Your task to perform on an android device: Go to display settings Image 0: 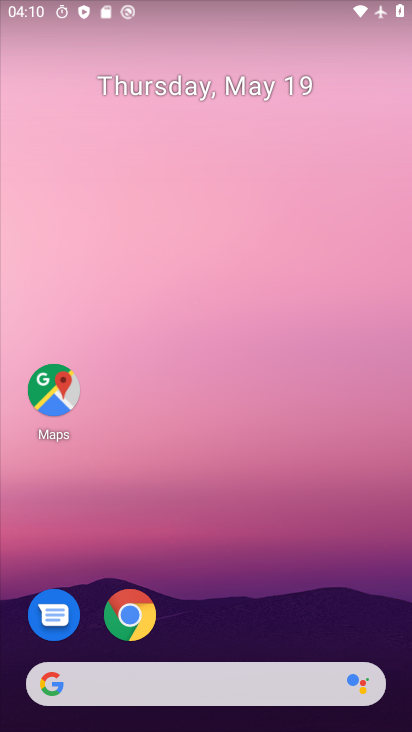
Step 0: drag from (334, 642) to (330, 10)
Your task to perform on an android device: Go to display settings Image 1: 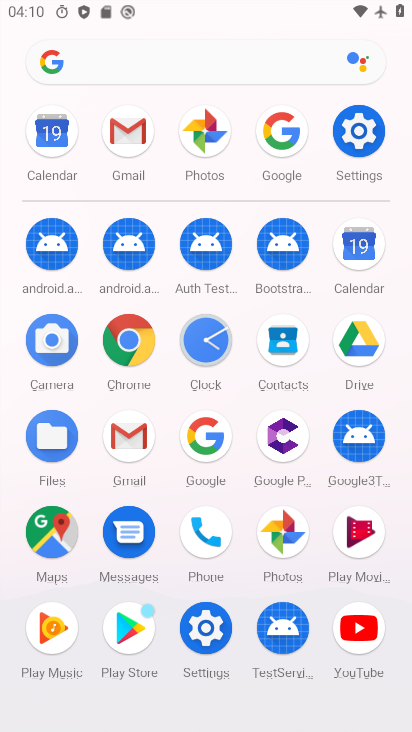
Step 1: click (361, 125)
Your task to perform on an android device: Go to display settings Image 2: 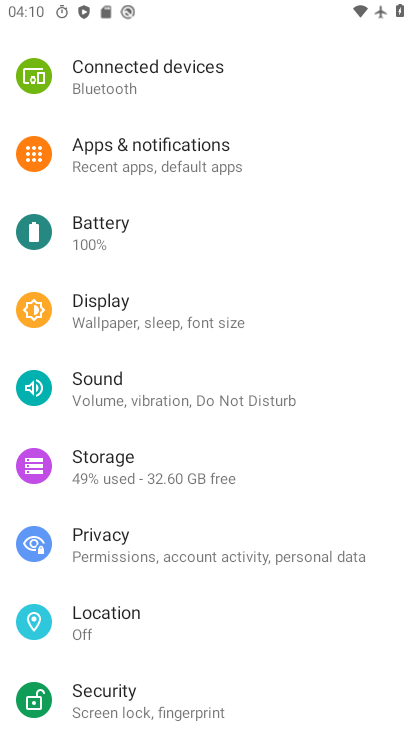
Step 2: click (108, 331)
Your task to perform on an android device: Go to display settings Image 3: 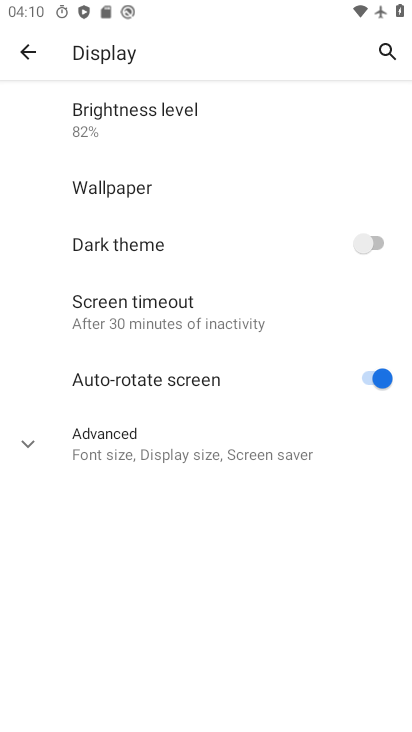
Step 3: task complete